Your task to perform on an android device: change your default location settings in chrome Image 0: 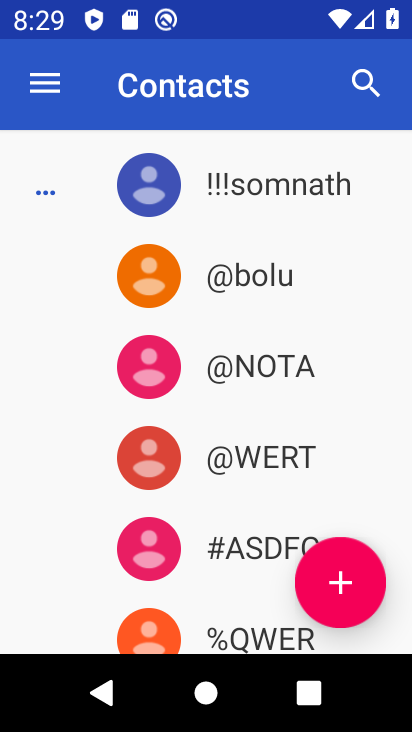
Step 0: press home button
Your task to perform on an android device: change your default location settings in chrome Image 1: 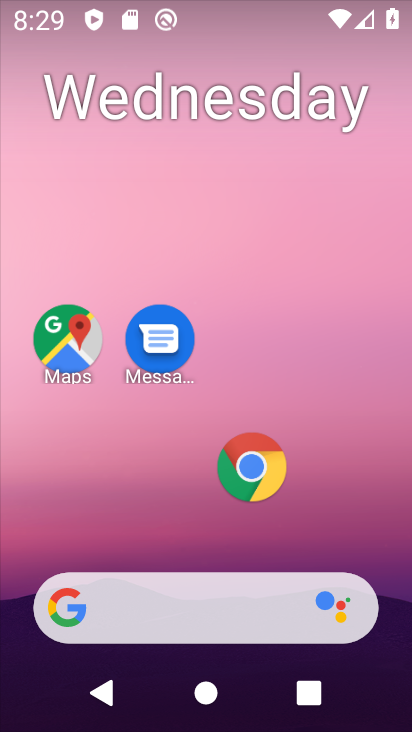
Step 1: click (248, 456)
Your task to perform on an android device: change your default location settings in chrome Image 2: 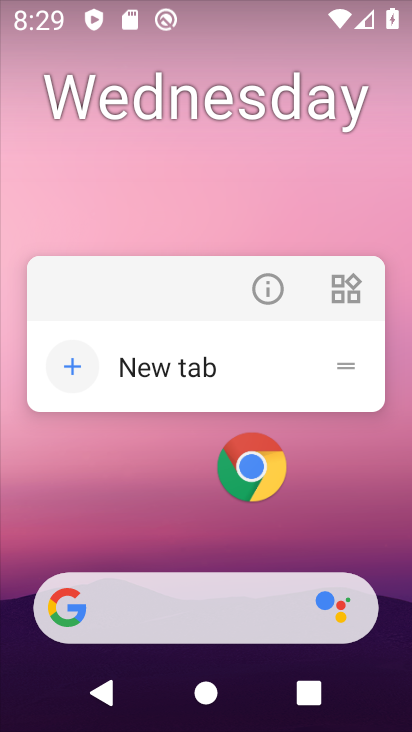
Step 2: click (250, 471)
Your task to perform on an android device: change your default location settings in chrome Image 3: 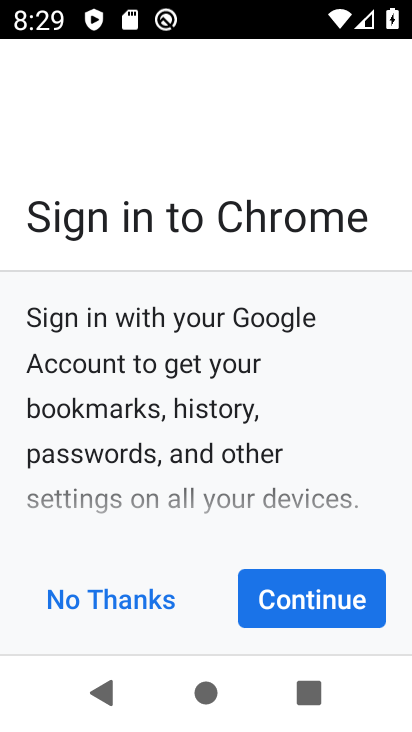
Step 3: click (317, 594)
Your task to perform on an android device: change your default location settings in chrome Image 4: 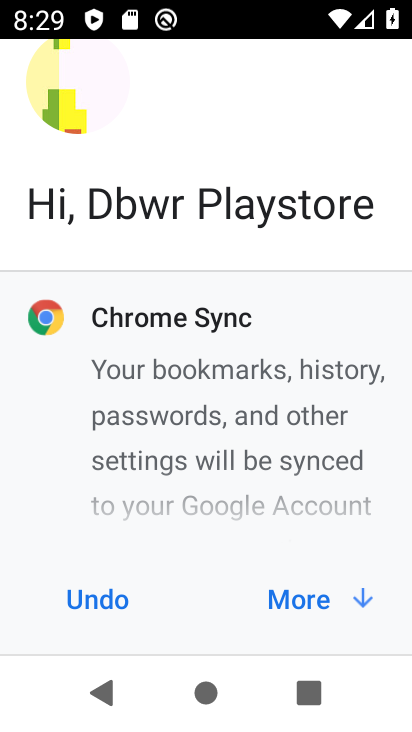
Step 4: click (317, 594)
Your task to perform on an android device: change your default location settings in chrome Image 5: 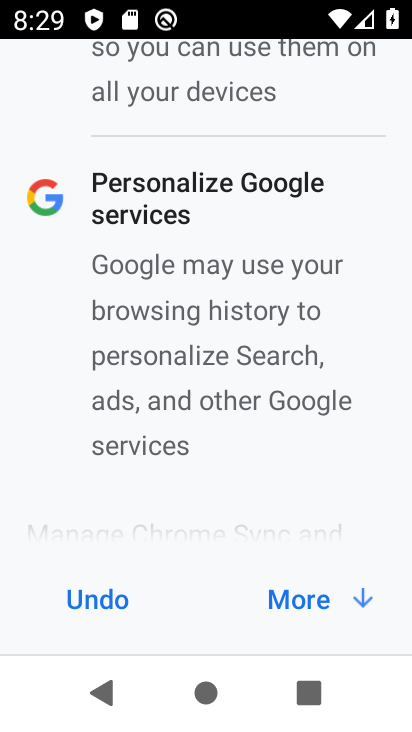
Step 5: click (317, 594)
Your task to perform on an android device: change your default location settings in chrome Image 6: 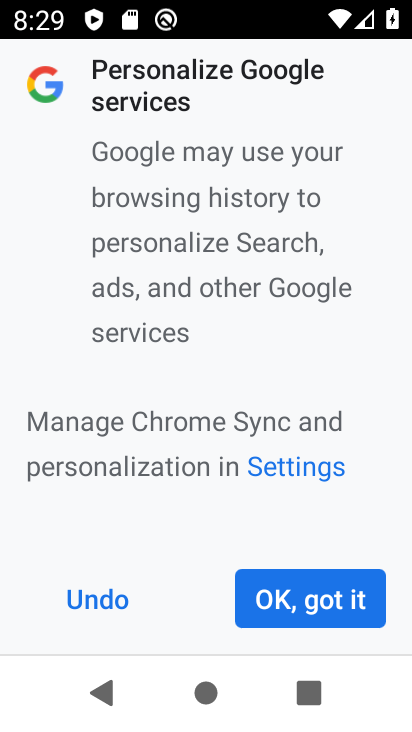
Step 6: click (317, 594)
Your task to perform on an android device: change your default location settings in chrome Image 7: 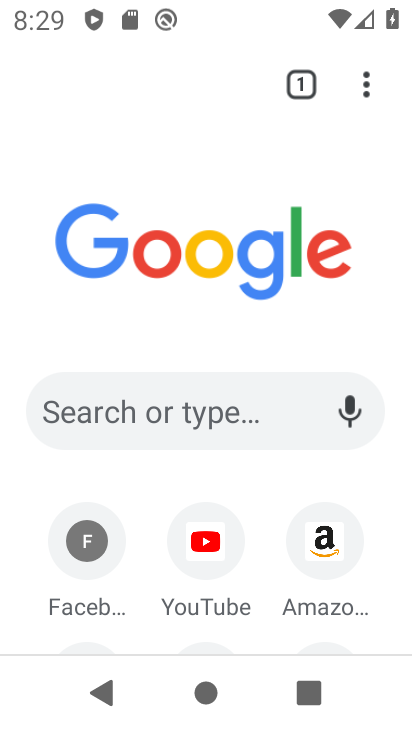
Step 7: click (367, 76)
Your task to perform on an android device: change your default location settings in chrome Image 8: 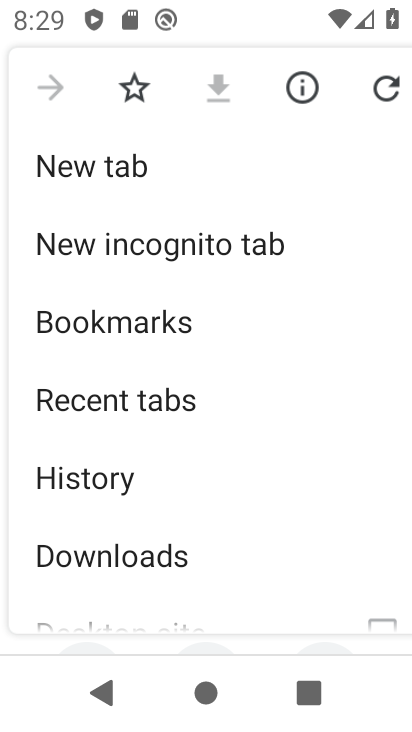
Step 8: drag from (258, 519) to (254, 55)
Your task to perform on an android device: change your default location settings in chrome Image 9: 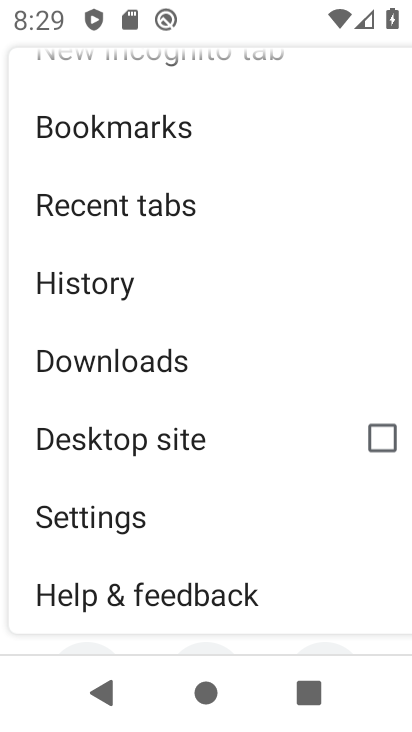
Step 9: click (139, 514)
Your task to perform on an android device: change your default location settings in chrome Image 10: 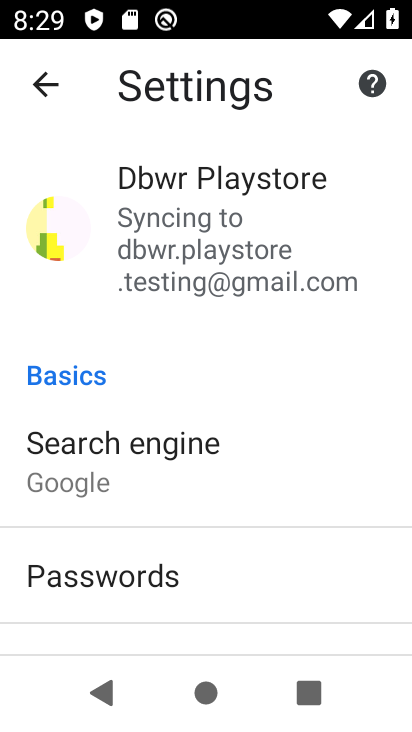
Step 10: click (157, 464)
Your task to perform on an android device: change your default location settings in chrome Image 11: 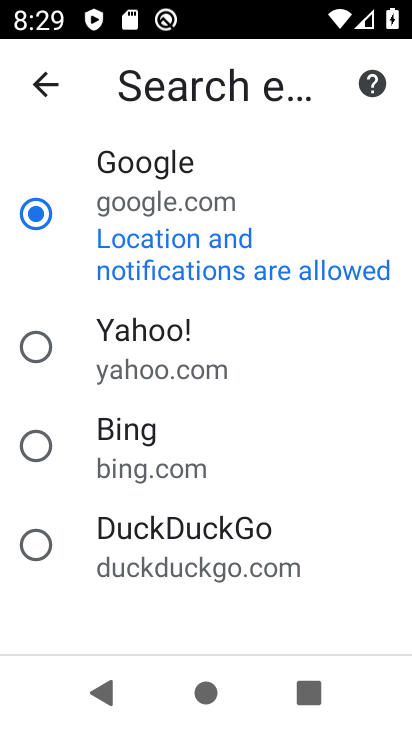
Step 11: press back button
Your task to perform on an android device: change your default location settings in chrome Image 12: 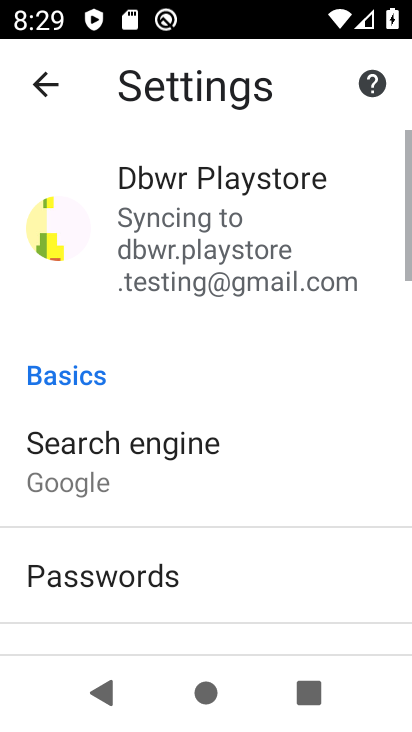
Step 12: drag from (238, 449) to (270, 31)
Your task to perform on an android device: change your default location settings in chrome Image 13: 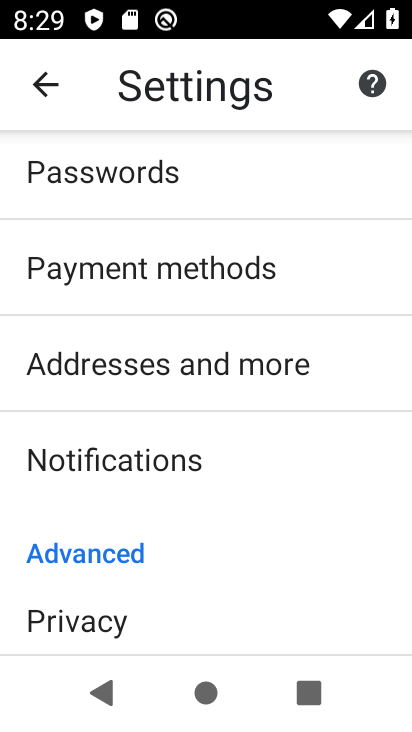
Step 13: drag from (145, 577) to (188, 59)
Your task to perform on an android device: change your default location settings in chrome Image 14: 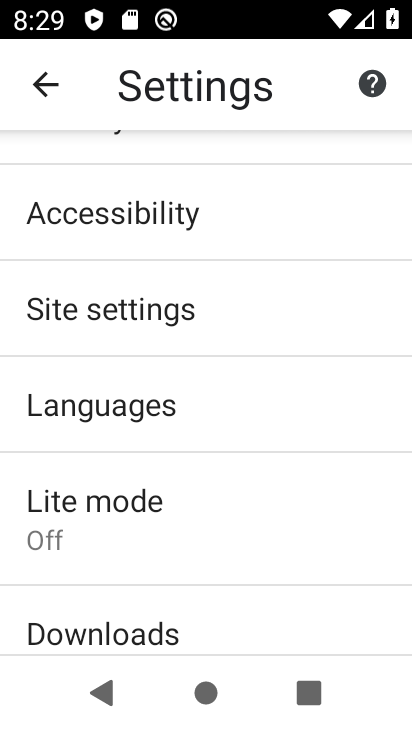
Step 14: click (57, 309)
Your task to perform on an android device: change your default location settings in chrome Image 15: 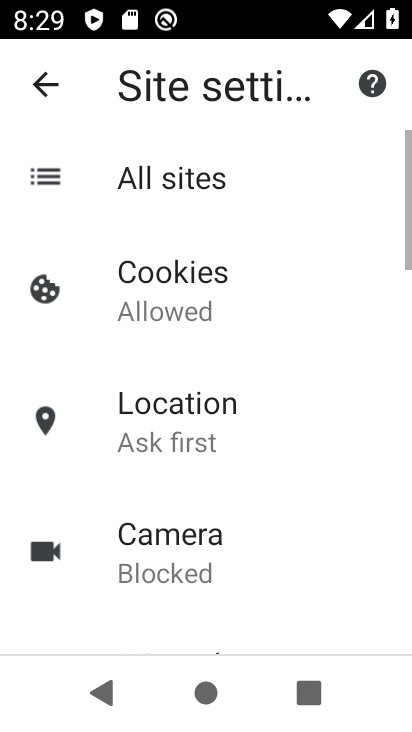
Step 15: click (171, 422)
Your task to perform on an android device: change your default location settings in chrome Image 16: 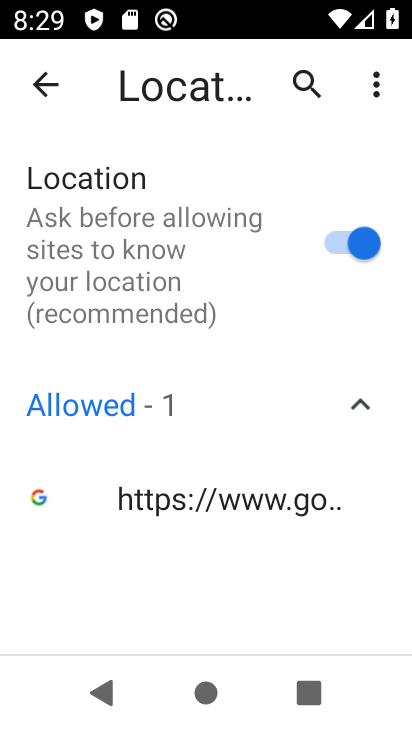
Step 16: click (352, 221)
Your task to perform on an android device: change your default location settings in chrome Image 17: 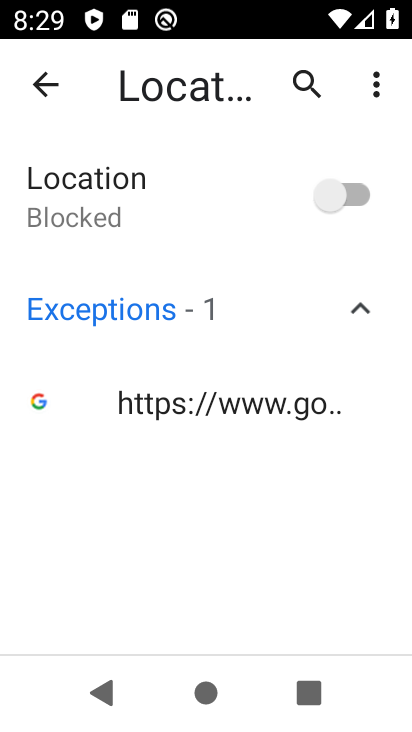
Step 17: task complete